Your task to perform on an android device: Open Android settings Image 0: 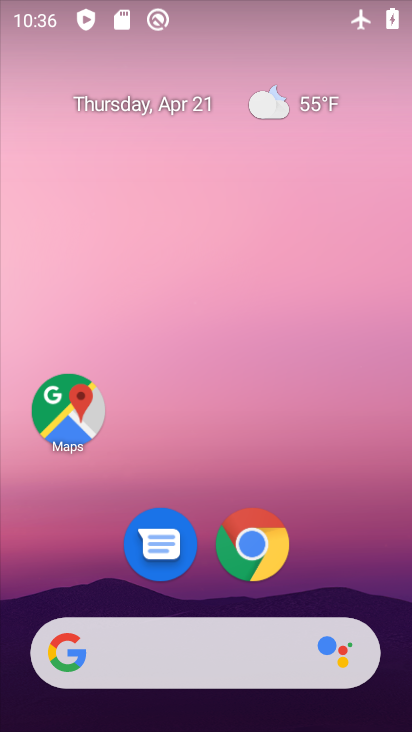
Step 0: drag from (332, 502) to (189, 10)
Your task to perform on an android device: Open Android settings Image 1: 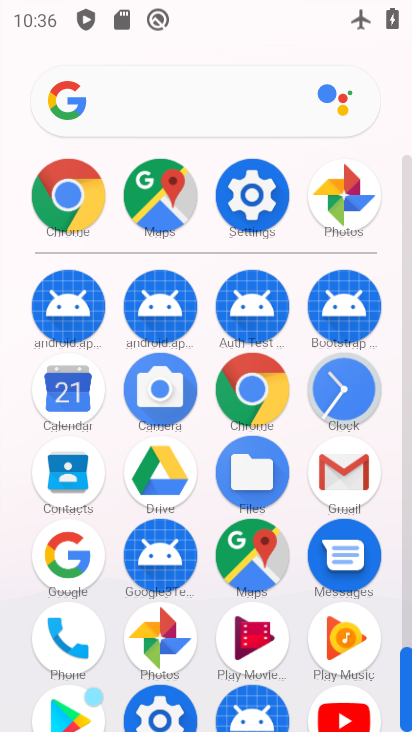
Step 1: drag from (15, 542) to (0, 267)
Your task to perform on an android device: Open Android settings Image 2: 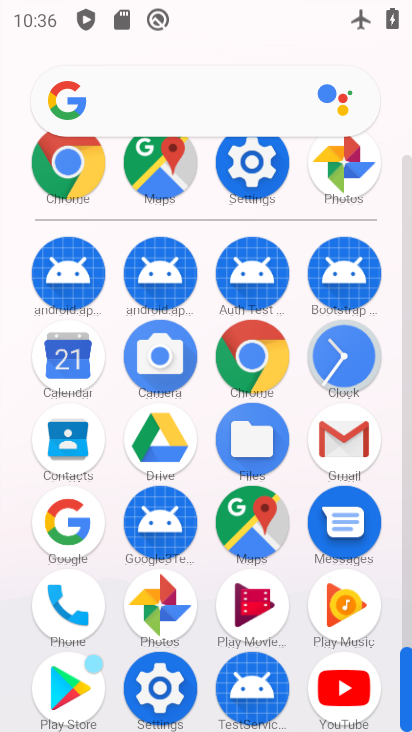
Step 2: click (158, 695)
Your task to perform on an android device: Open Android settings Image 3: 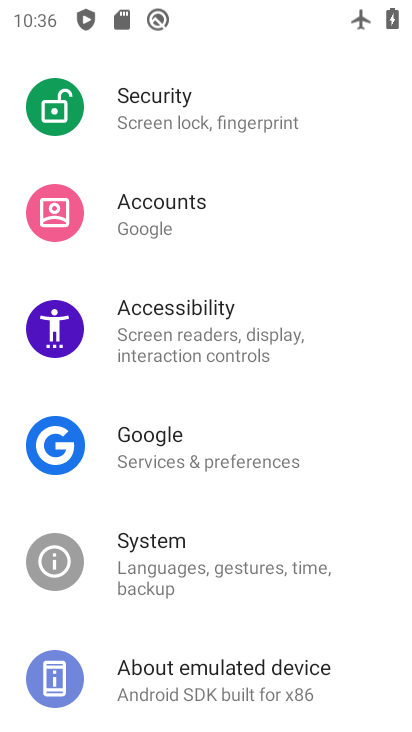
Step 3: task complete